Your task to perform on an android device: Open network settings Image 0: 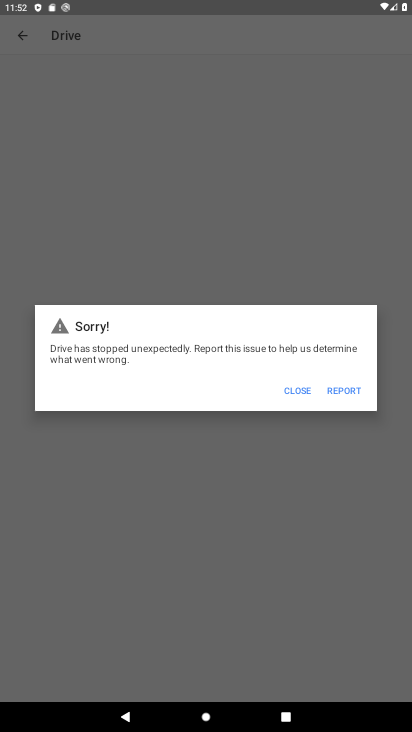
Step 0: press home button
Your task to perform on an android device: Open network settings Image 1: 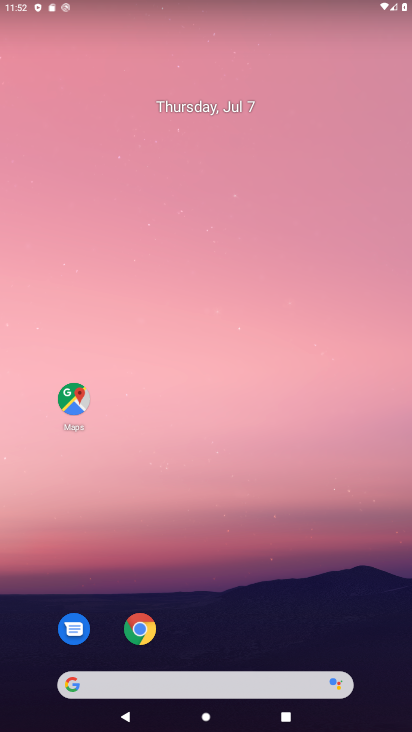
Step 1: press home button
Your task to perform on an android device: Open network settings Image 2: 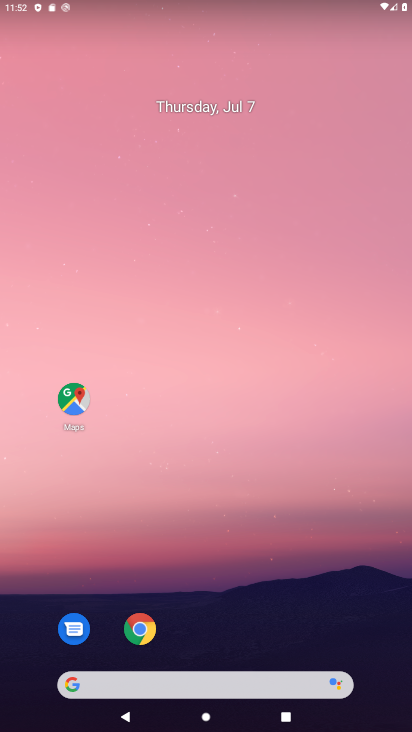
Step 2: press home button
Your task to perform on an android device: Open network settings Image 3: 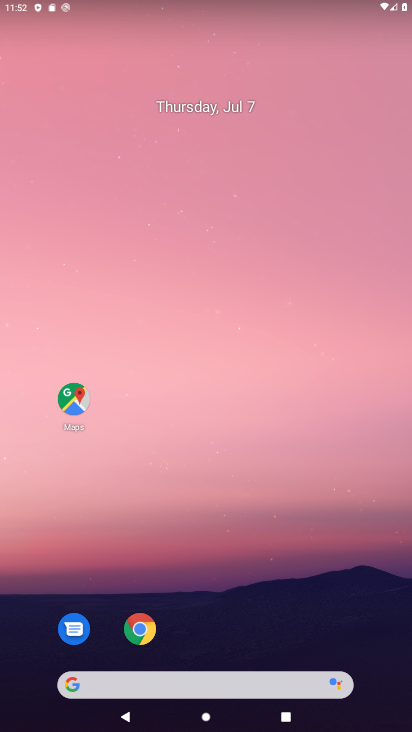
Step 3: drag from (285, 494) to (273, 288)
Your task to perform on an android device: Open network settings Image 4: 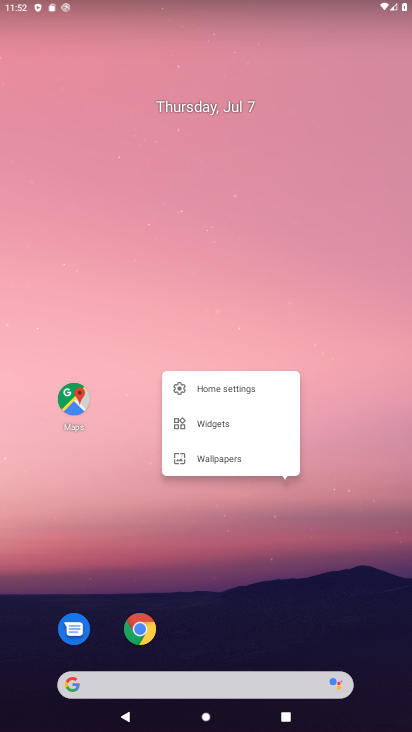
Step 4: drag from (338, 491) to (376, 59)
Your task to perform on an android device: Open network settings Image 5: 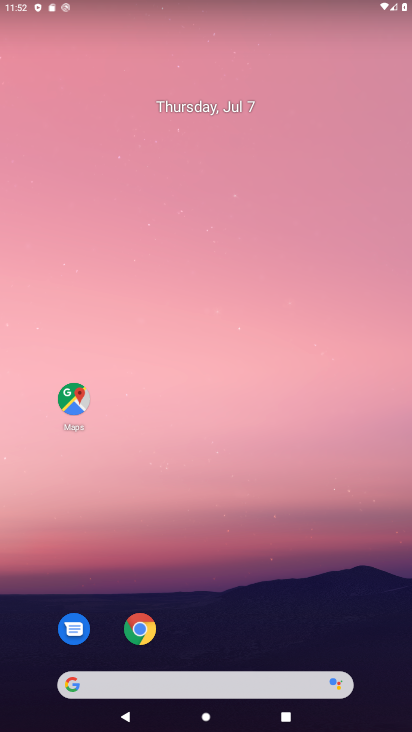
Step 5: drag from (355, 595) to (348, 350)
Your task to perform on an android device: Open network settings Image 6: 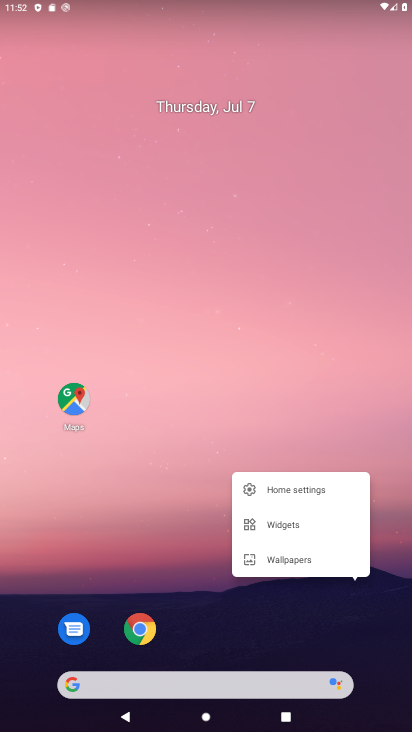
Step 6: drag from (169, 517) to (373, 2)
Your task to perform on an android device: Open network settings Image 7: 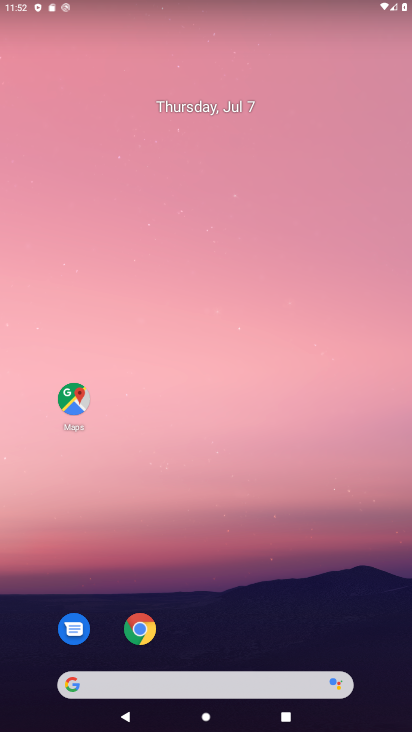
Step 7: drag from (271, 646) to (347, 3)
Your task to perform on an android device: Open network settings Image 8: 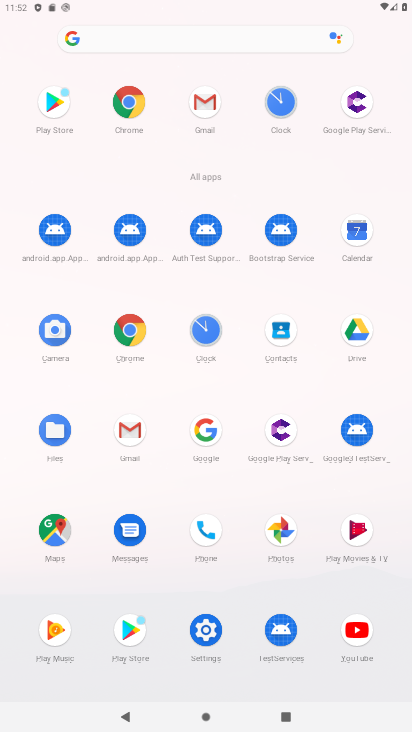
Step 8: click (202, 652)
Your task to perform on an android device: Open network settings Image 9: 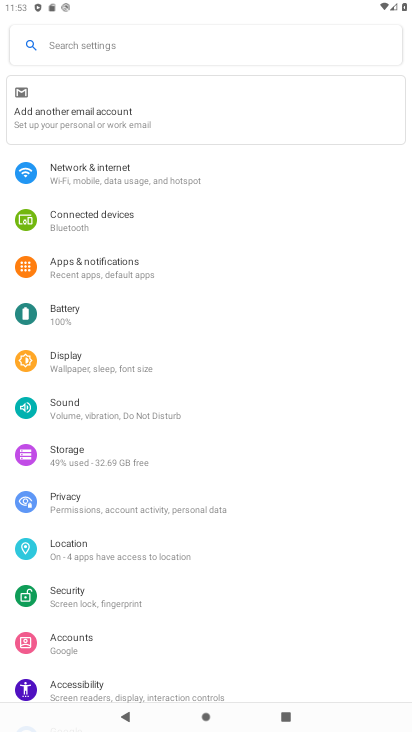
Step 9: click (121, 169)
Your task to perform on an android device: Open network settings Image 10: 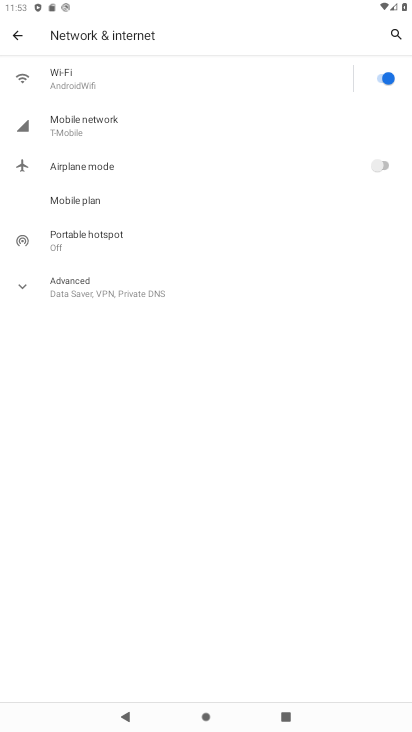
Step 10: task complete